Your task to perform on an android device: open chrome and create a bookmark for the current page Image 0: 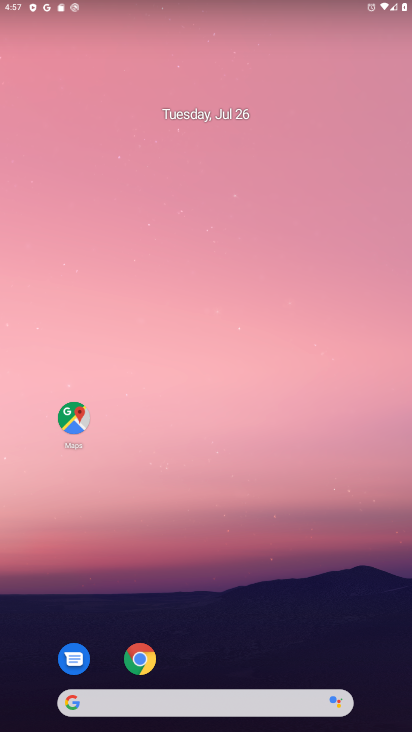
Step 0: press home button
Your task to perform on an android device: open chrome and create a bookmark for the current page Image 1: 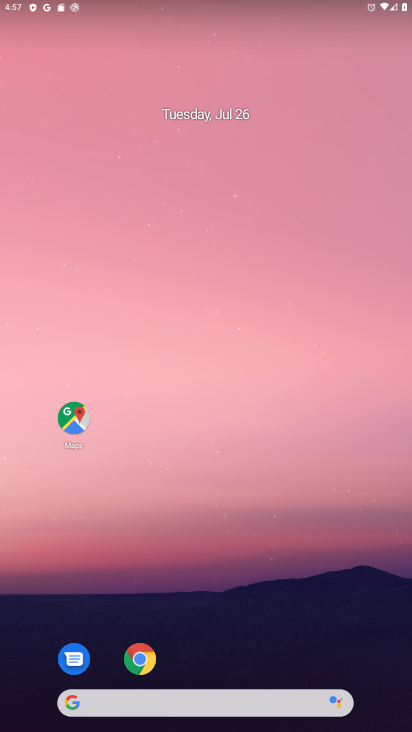
Step 1: click (139, 652)
Your task to perform on an android device: open chrome and create a bookmark for the current page Image 2: 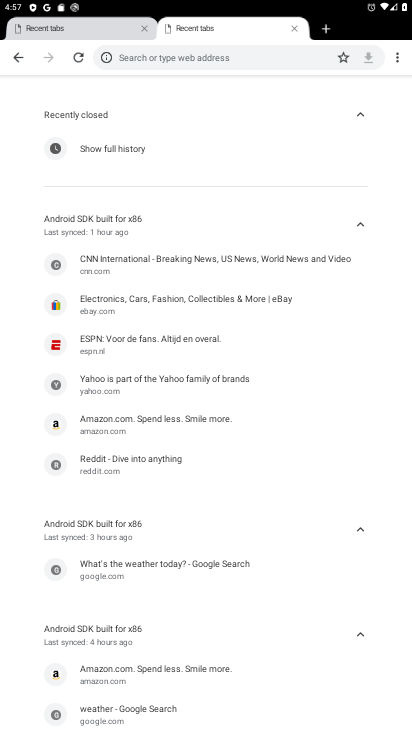
Step 2: click (343, 52)
Your task to perform on an android device: open chrome and create a bookmark for the current page Image 3: 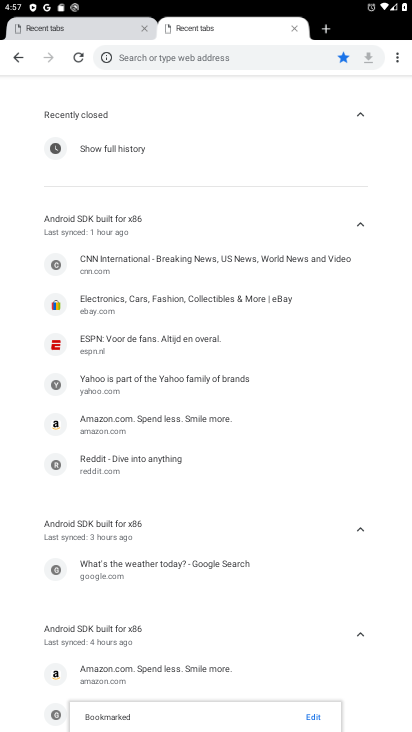
Step 3: task complete